Your task to perform on an android device: Search for sushi restaurants on Maps Image 0: 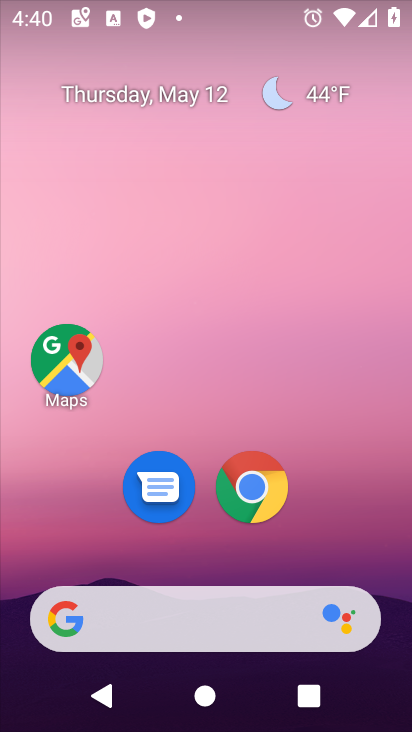
Step 0: click (58, 365)
Your task to perform on an android device: Search for sushi restaurants on Maps Image 1: 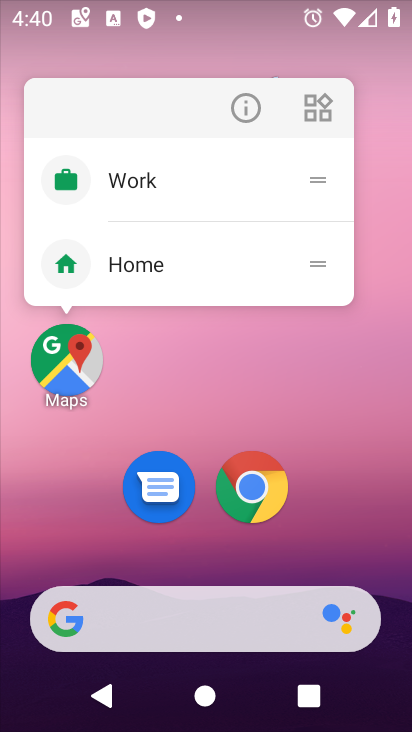
Step 1: click (57, 356)
Your task to perform on an android device: Search for sushi restaurants on Maps Image 2: 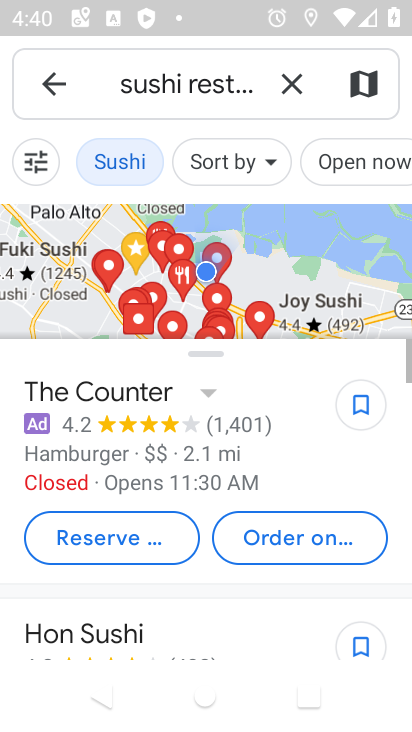
Step 2: task complete